Your task to perform on an android device: Open Google Chrome and open the bookmarks view Image 0: 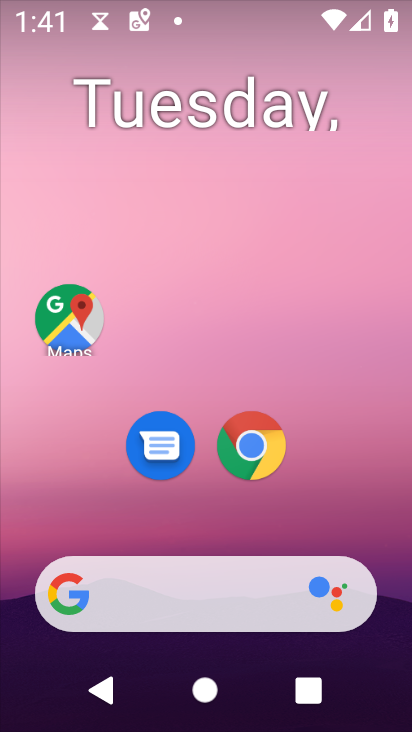
Step 0: drag from (379, 601) to (389, 96)
Your task to perform on an android device: Open Google Chrome and open the bookmarks view Image 1: 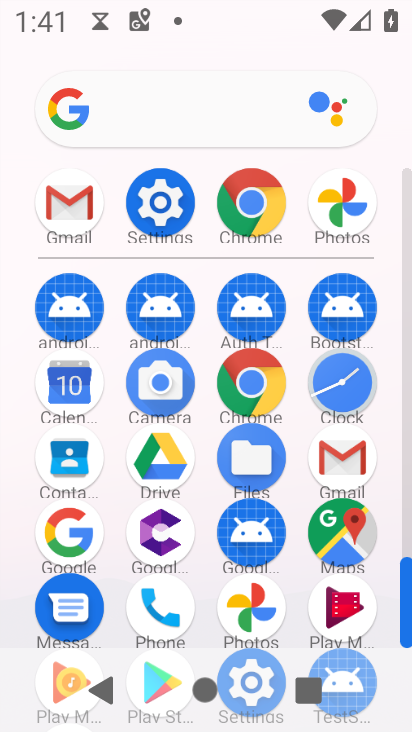
Step 1: click (260, 389)
Your task to perform on an android device: Open Google Chrome and open the bookmarks view Image 2: 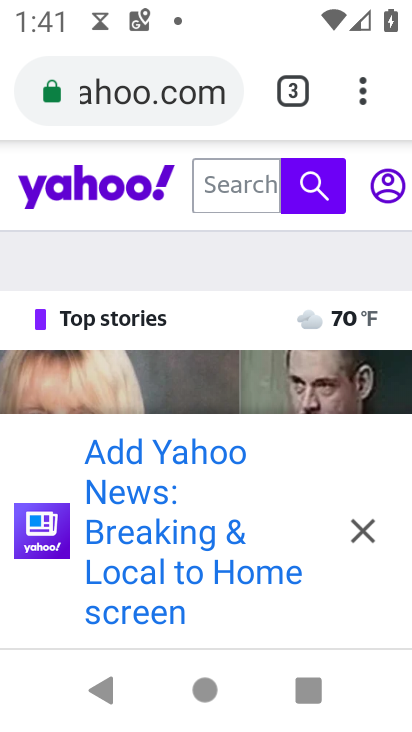
Step 2: drag from (372, 95) to (253, 573)
Your task to perform on an android device: Open Google Chrome and open the bookmarks view Image 3: 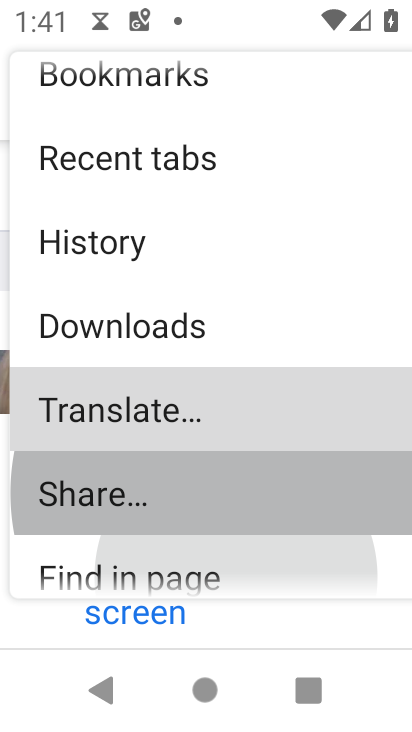
Step 3: drag from (245, 586) to (264, 237)
Your task to perform on an android device: Open Google Chrome and open the bookmarks view Image 4: 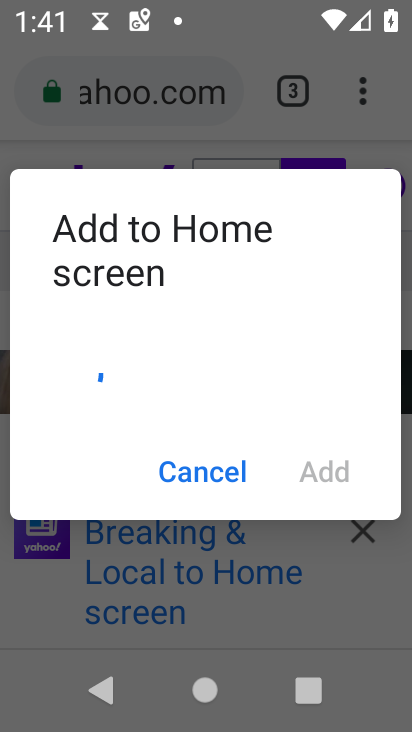
Step 4: click (209, 476)
Your task to perform on an android device: Open Google Chrome and open the bookmarks view Image 5: 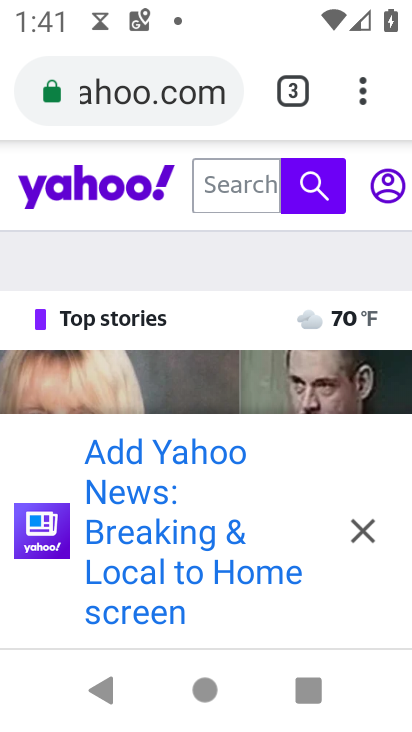
Step 5: task complete